Your task to perform on an android device: Open internet settings Image 0: 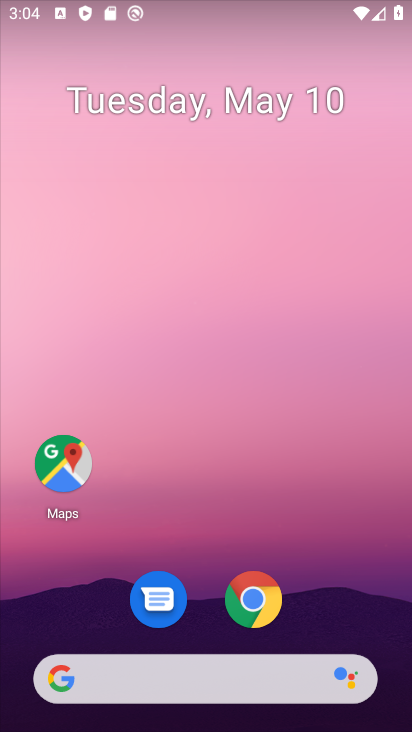
Step 0: drag from (274, 607) to (292, 8)
Your task to perform on an android device: Open internet settings Image 1: 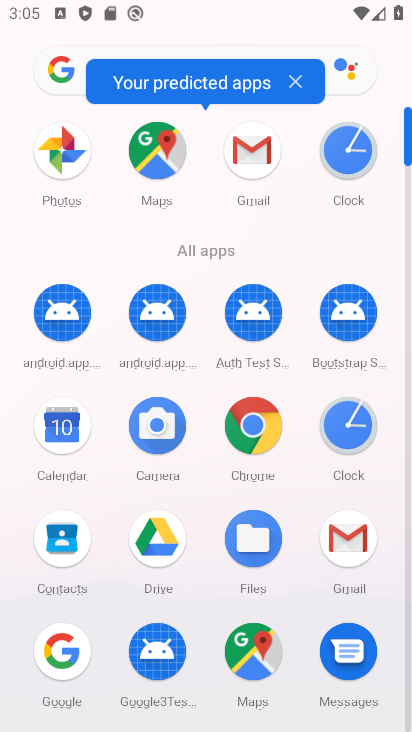
Step 1: drag from (307, 457) to (305, 2)
Your task to perform on an android device: Open internet settings Image 2: 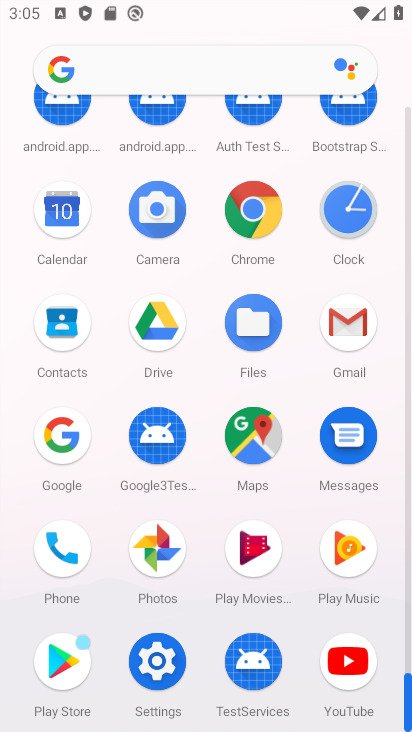
Step 2: click (171, 686)
Your task to perform on an android device: Open internet settings Image 3: 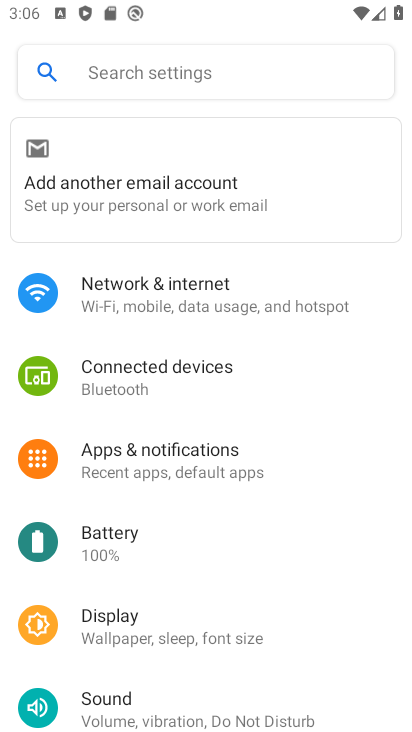
Step 3: click (217, 275)
Your task to perform on an android device: Open internet settings Image 4: 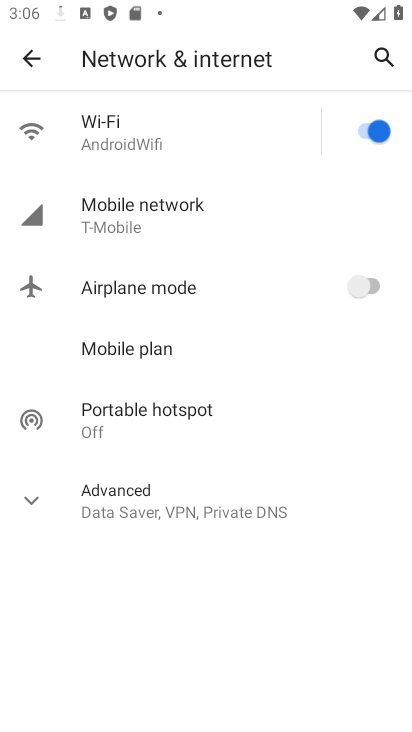
Step 4: click (230, 217)
Your task to perform on an android device: Open internet settings Image 5: 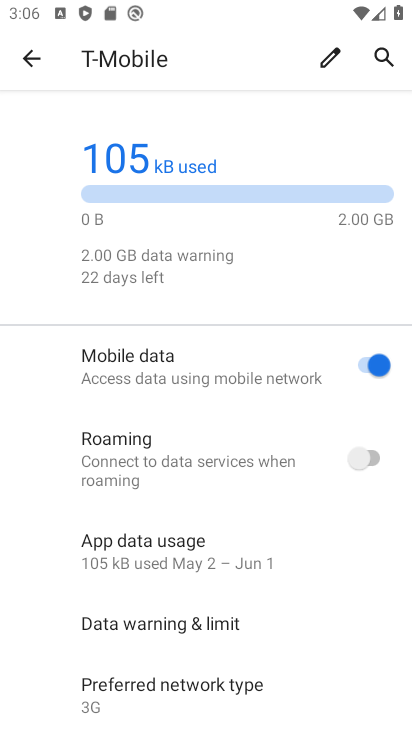
Step 5: task complete